Your task to perform on an android device: Open the Play Movies app and select the watchlist tab. Image 0: 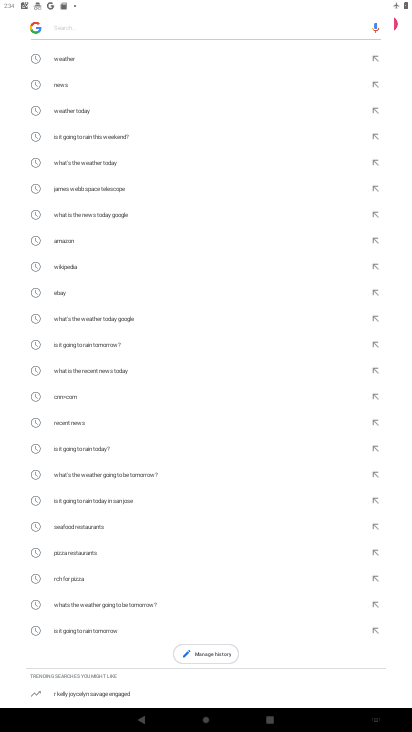
Step 0: press home button
Your task to perform on an android device: Open the Play Movies app and select the watchlist tab. Image 1: 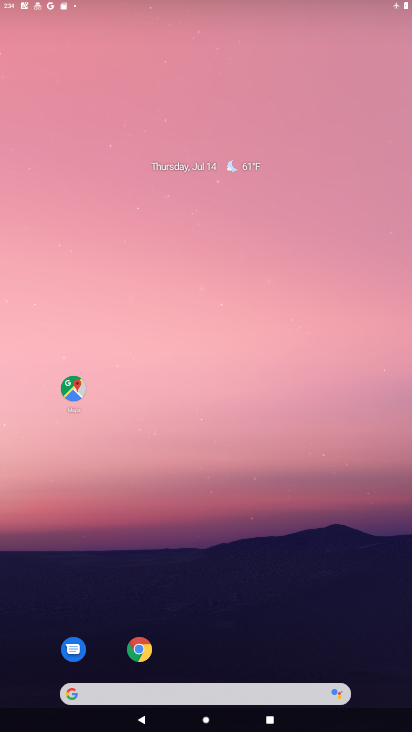
Step 1: drag from (305, 637) to (303, 71)
Your task to perform on an android device: Open the Play Movies app and select the watchlist tab. Image 2: 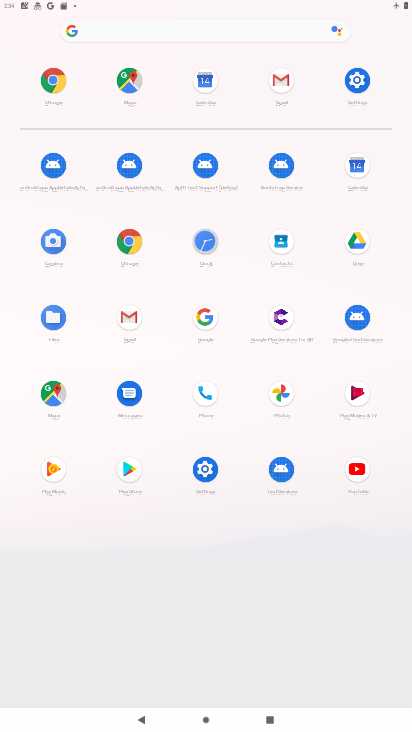
Step 2: click (361, 399)
Your task to perform on an android device: Open the Play Movies app and select the watchlist tab. Image 3: 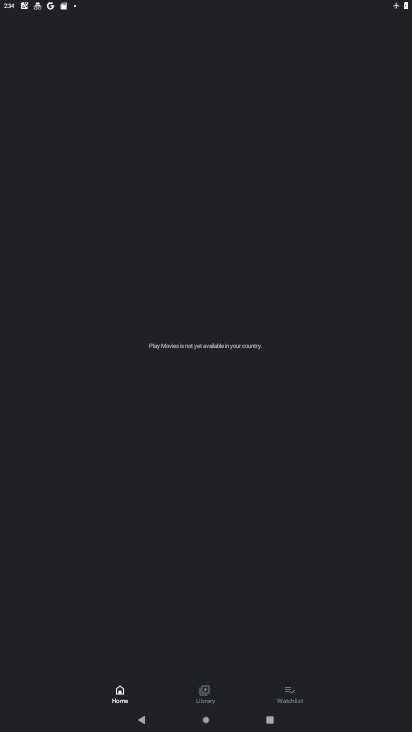
Step 3: click (295, 698)
Your task to perform on an android device: Open the Play Movies app and select the watchlist tab. Image 4: 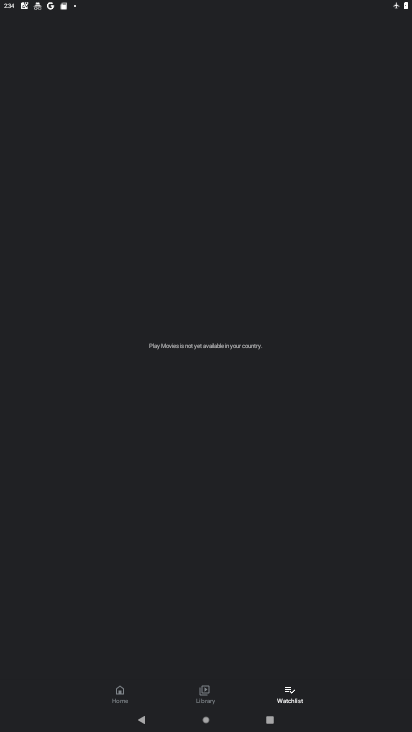
Step 4: task complete